Your task to perform on an android device: turn pop-ups on in chrome Image 0: 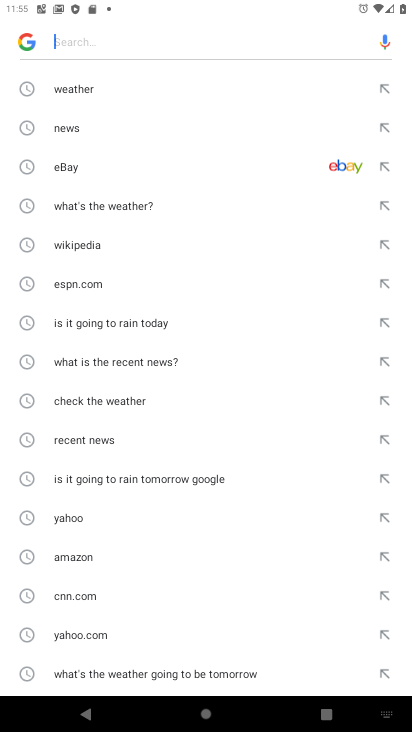
Step 0: press home button
Your task to perform on an android device: turn pop-ups on in chrome Image 1: 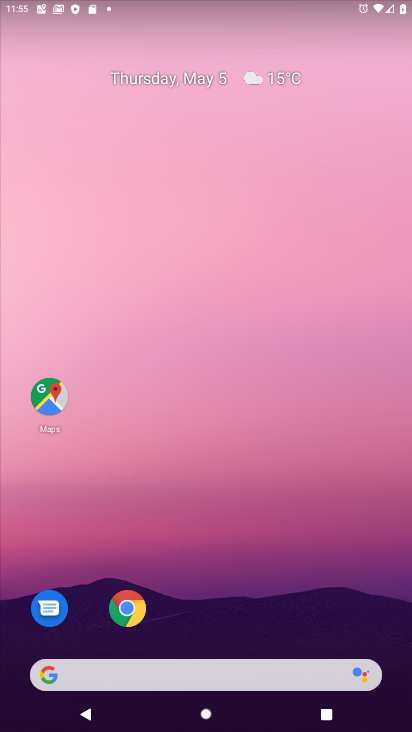
Step 1: click (134, 599)
Your task to perform on an android device: turn pop-ups on in chrome Image 2: 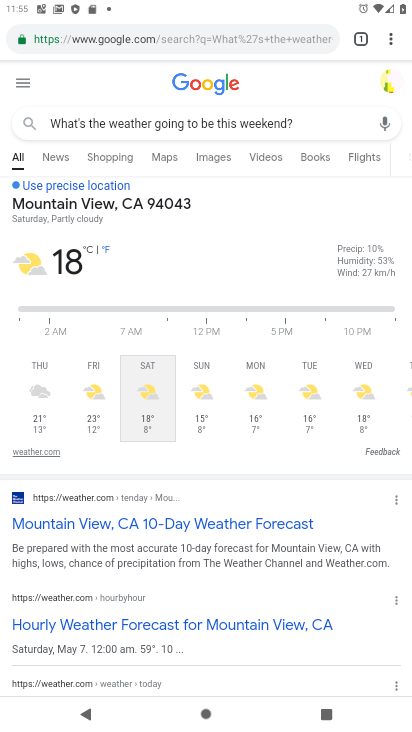
Step 2: drag from (393, 39) to (276, 444)
Your task to perform on an android device: turn pop-ups on in chrome Image 3: 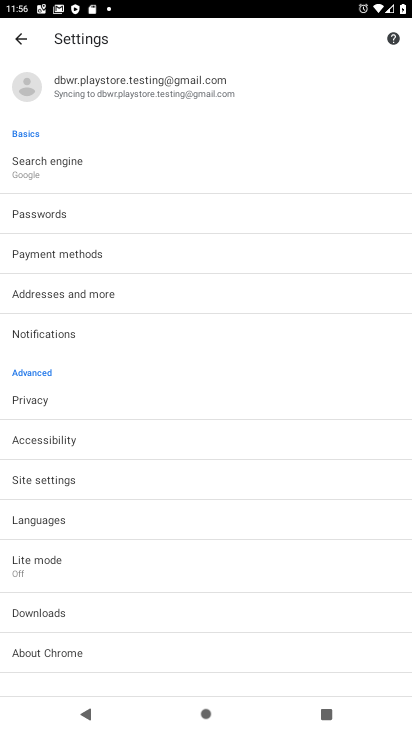
Step 3: click (47, 485)
Your task to perform on an android device: turn pop-ups on in chrome Image 4: 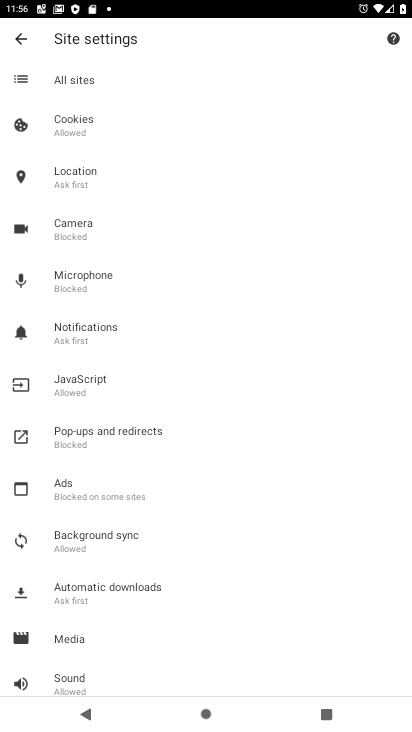
Step 4: click (88, 433)
Your task to perform on an android device: turn pop-ups on in chrome Image 5: 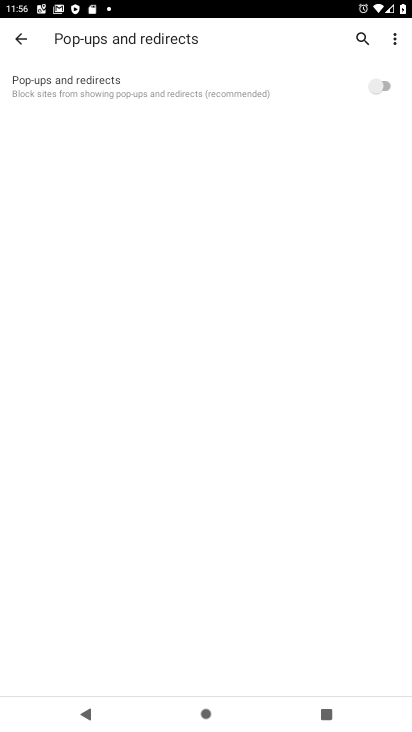
Step 5: click (385, 82)
Your task to perform on an android device: turn pop-ups on in chrome Image 6: 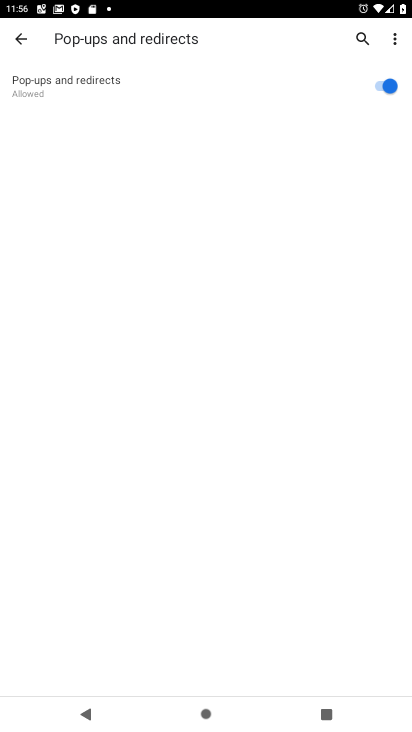
Step 6: task complete